Your task to perform on an android device: toggle improve location accuracy Image 0: 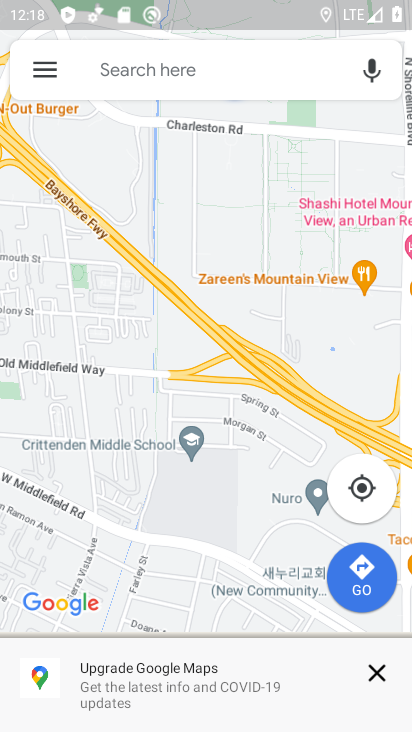
Step 0: press home button
Your task to perform on an android device: toggle improve location accuracy Image 1: 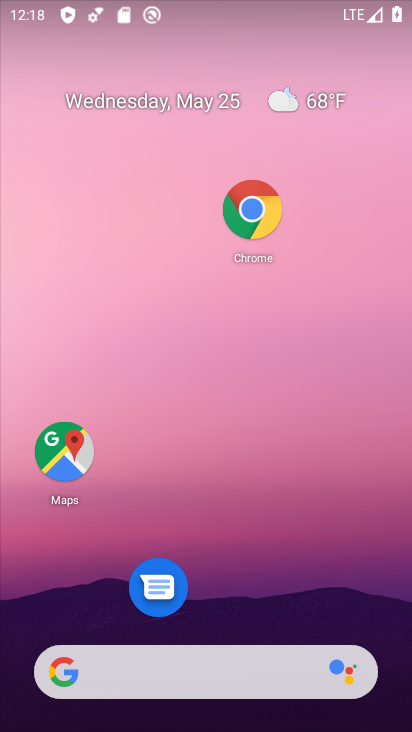
Step 1: drag from (245, 611) to (246, 232)
Your task to perform on an android device: toggle improve location accuracy Image 2: 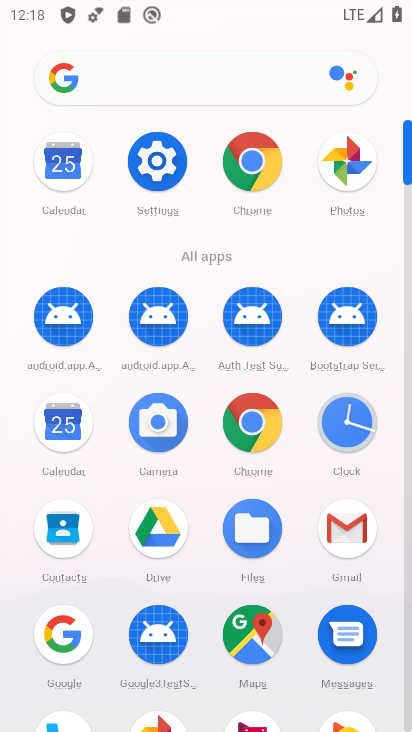
Step 2: click (155, 158)
Your task to perform on an android device: toggle improve location accuracy Image 3: 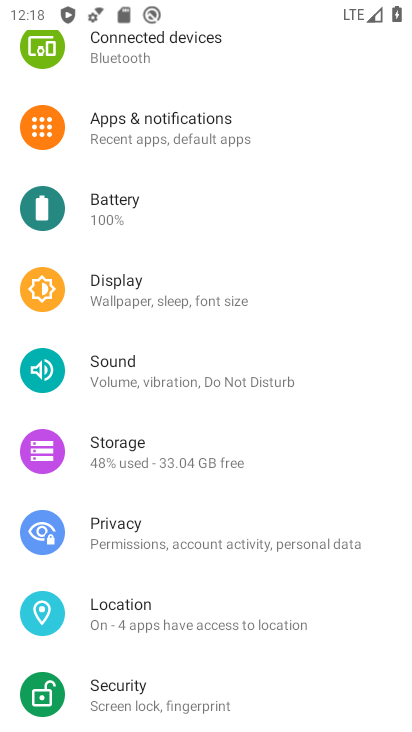
Step 3: click (173, 605)
Your task to perform on an android device: toggle improve location accuracy Image 4: 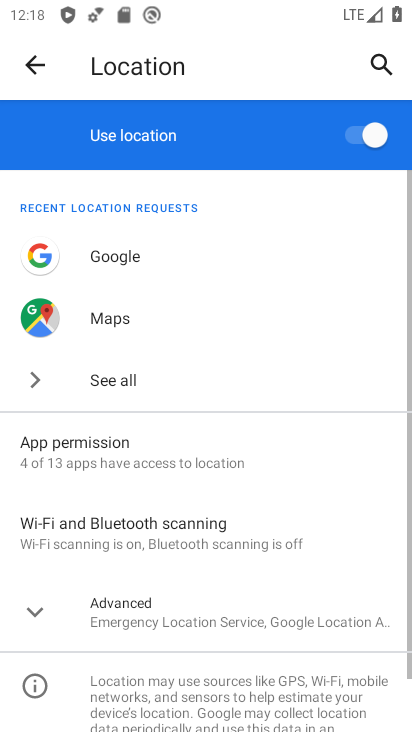
Step 4: click (104, 610)
Your task to perform on an android device: toggle improve location accuracy Image 5: 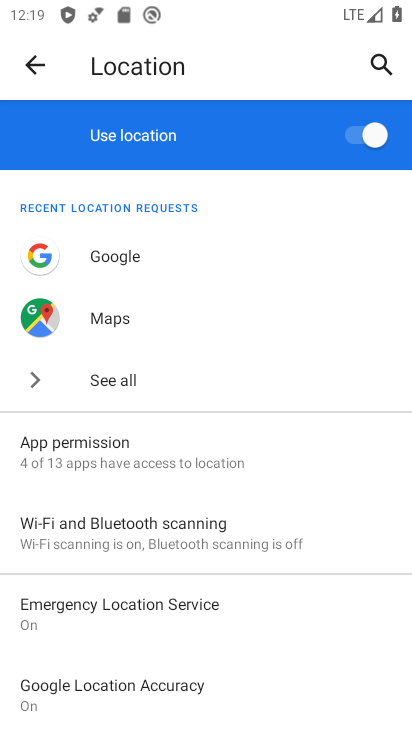
Step 5: click (183, 694)
Your task to perform on an android device: toggle improve location accuracy Image 6: 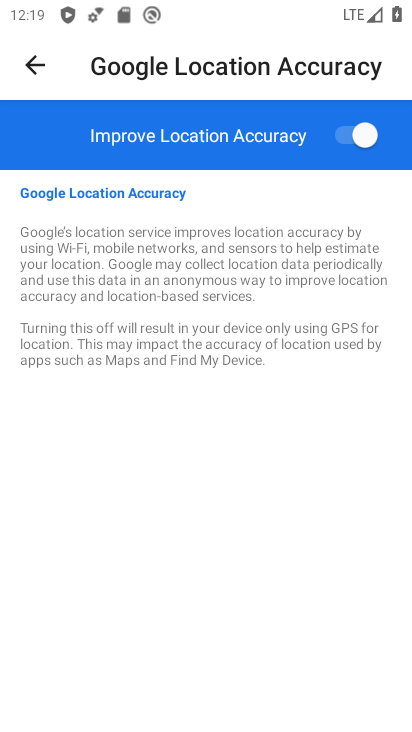
Step 6: task complete